Your task to perform on an android device: turn off smart reply in the gmail app Image 0: 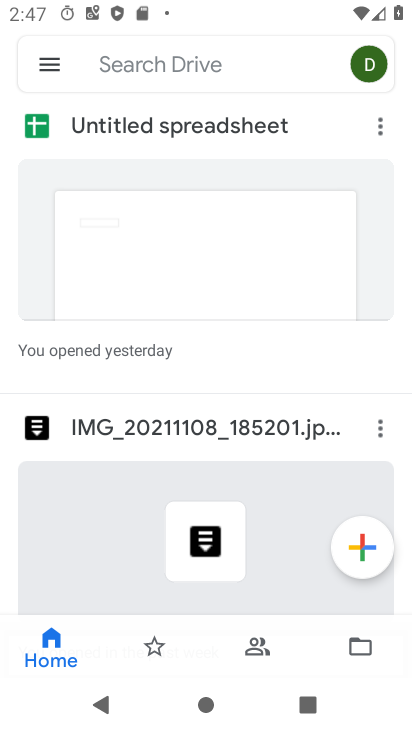
Step 0: press home button
Your task to perform on an android device: turn off smart reply in the gmail app Image 1: 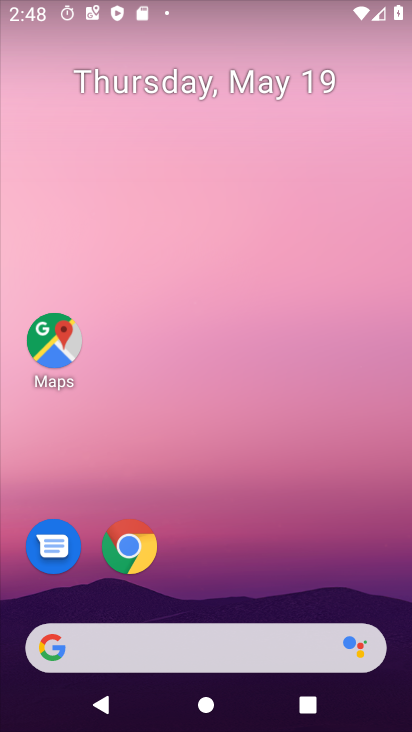
Step 1: drag from (202, 585) to (185, 8)
Your task to perform on an android device: turn off smart reply in the gmail app Image 2: 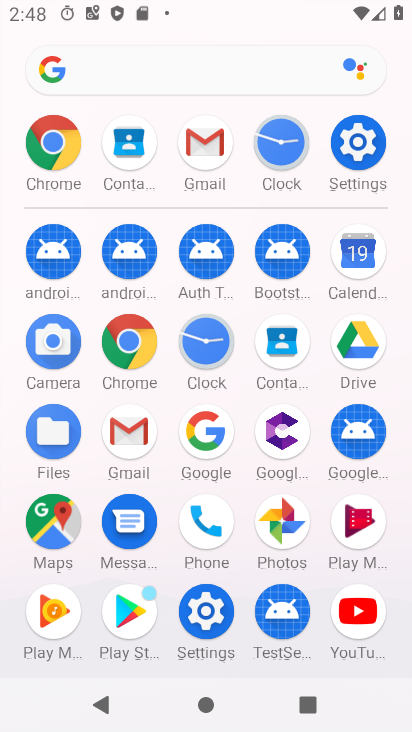
Step 2: click (194, 158)
Your task to perform on an android device: turn off smart reply in the gmail app Image 3: 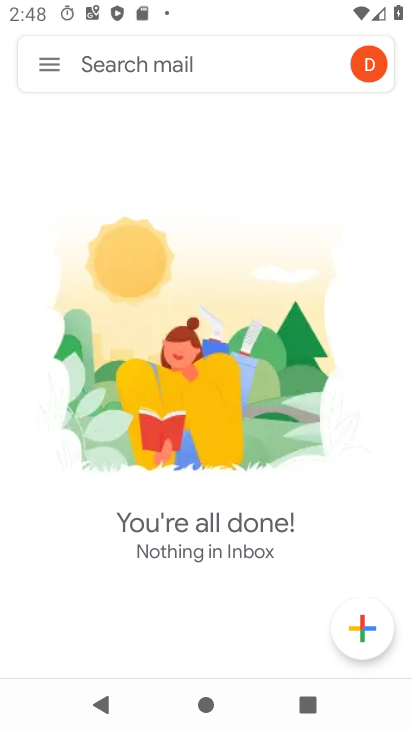
Step 3: click (53, 76)
Your task to perform on an android device: turn off smart reply in the gmail app Image 4: 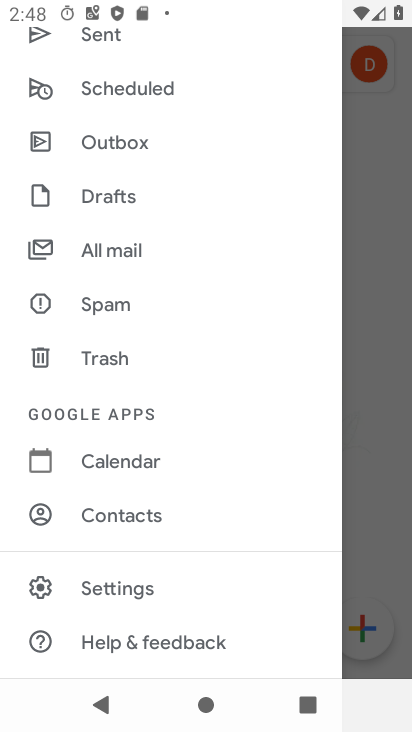
Step 4: click (110, 599)
Your task to perform on an android device: turn off smart reply in the gmail app Image 5: 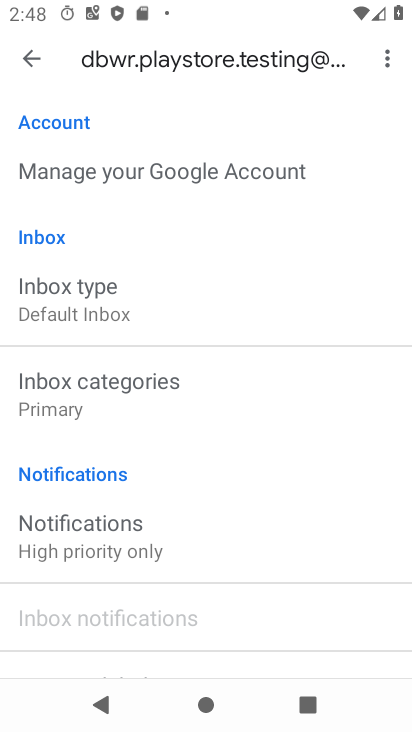
Step 5: drag from (97, 620) to (216, 200)
Your task to perform on an android device: turn off smart reply in the gmail app Image 6: 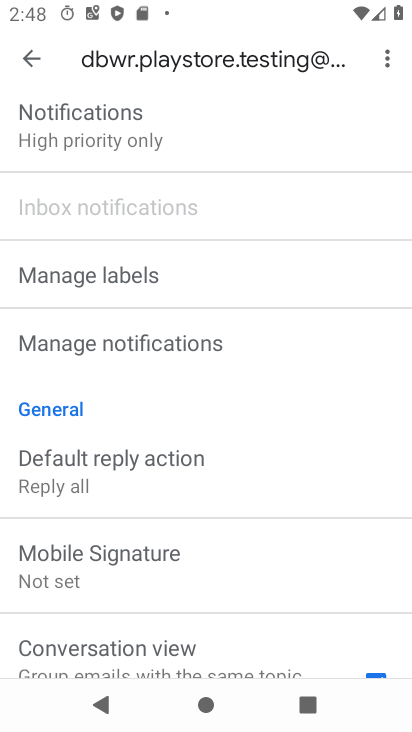
Step 6: drag from (78, 635) to (211, 267)
Your task to perform on an android device: turn off smart reply in the gmail app Image 7: 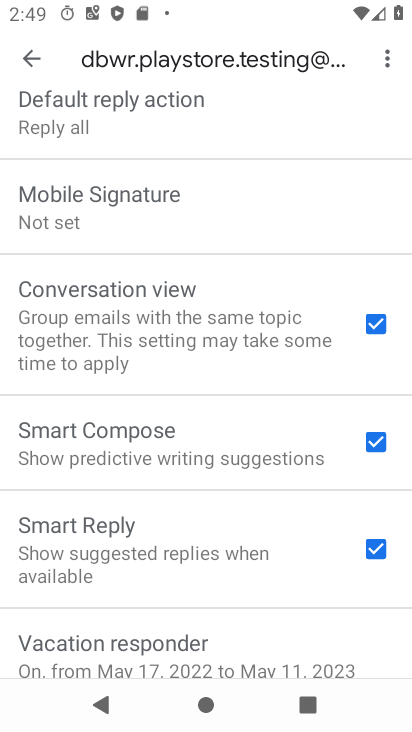
Step 7: click (372, 553)
Your task to perform on an android device: turn off smart reply in the gmail app Image 8: 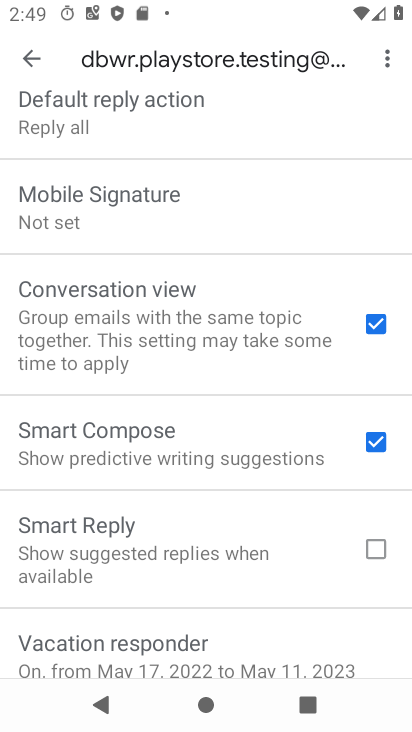
Step 8: task complete